Your task to perform on an android device: Go to location settings Image 0: 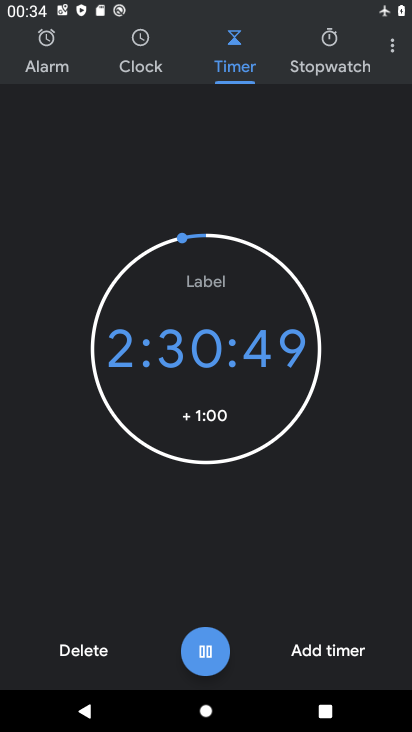
Step 0: press back button
Your task to perform on an android device: Go to location settings Image 1: 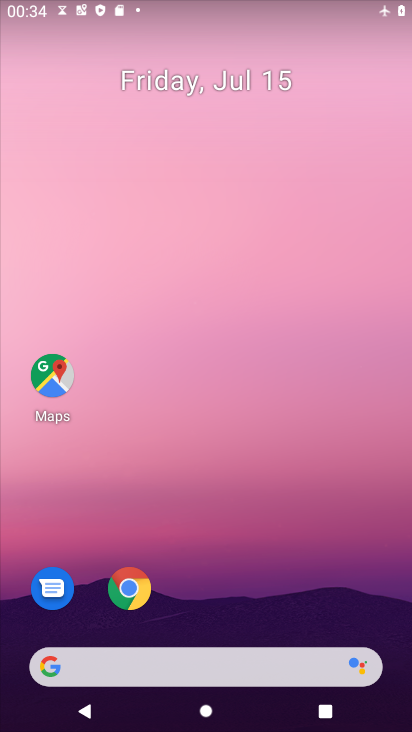
Step 1: drag from (303, 577) to (302, 23)
Your task to perform on an android device: Go to location settings Image 2: 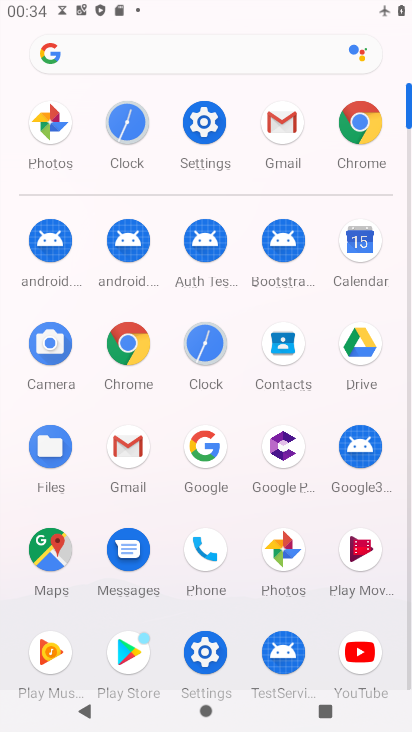
Step 2: click (199, 120)
Your task to perform on an android device: Go to location settings Image 3: 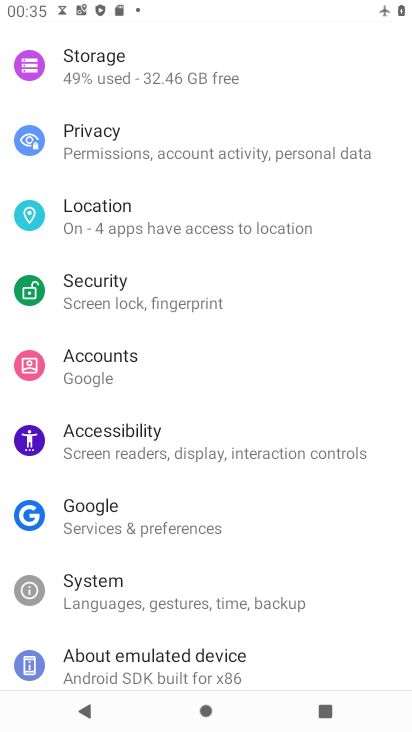
Step 3: click (233, 207)
Your task to perform on an android device: Go to location settings Image 4: 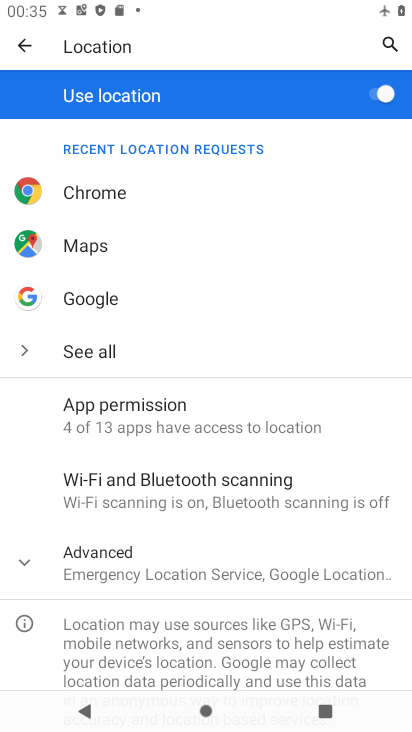
Step 4: task complete